Your task to perform on an android device: Open maps Image 0: 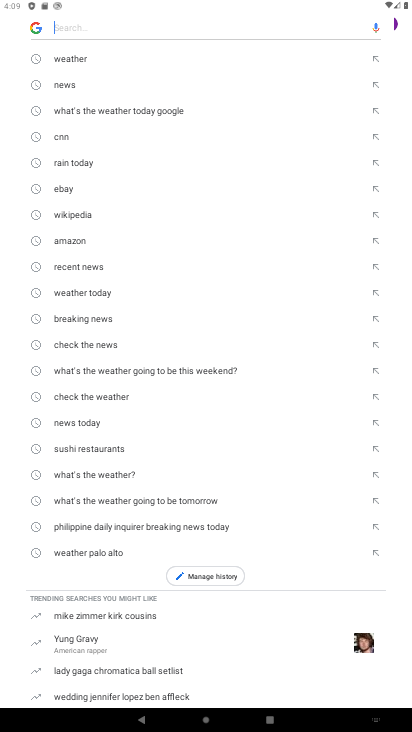
Step 0: press home button
Your task to perform on an android device: Open maps Image 1: 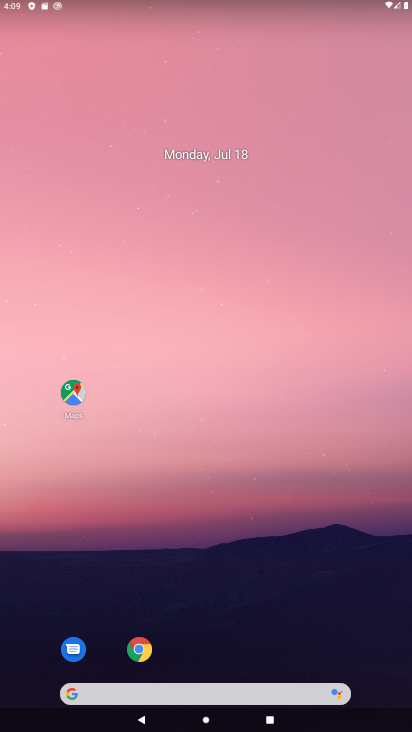
Step 1: click (67, 382)
Your task to perform on an android device: Open maps Image 2: 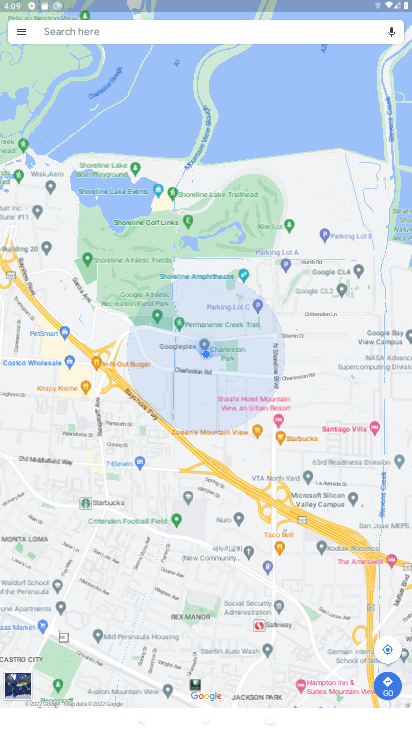
Step 2: task complete